Your task to perform on an android device: turn on javascript in the chrome app Image 0: 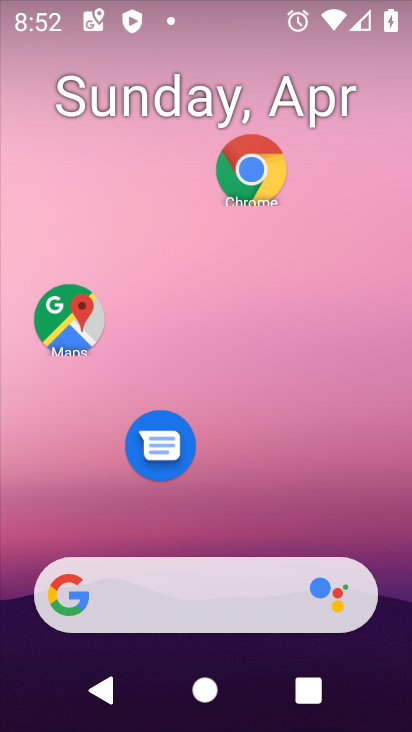
Step 0: click (255, 172)
Your task to perform on an android device: turn on javascript in the chrome app Image 1: 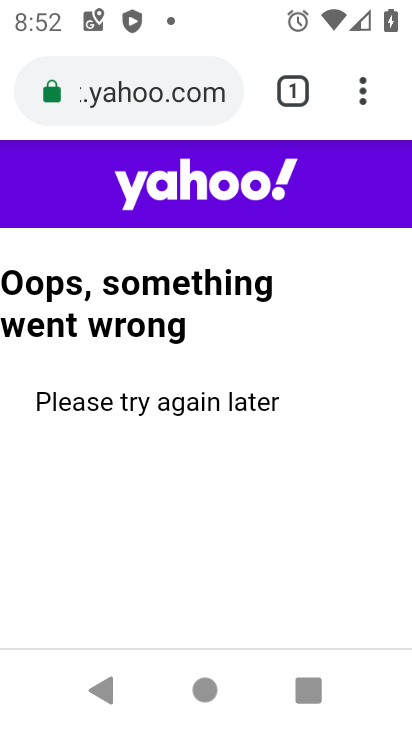
Step 1: click (359, 78)
Your task to perform on an android device: turn on javascript in the chrome app Image 2: 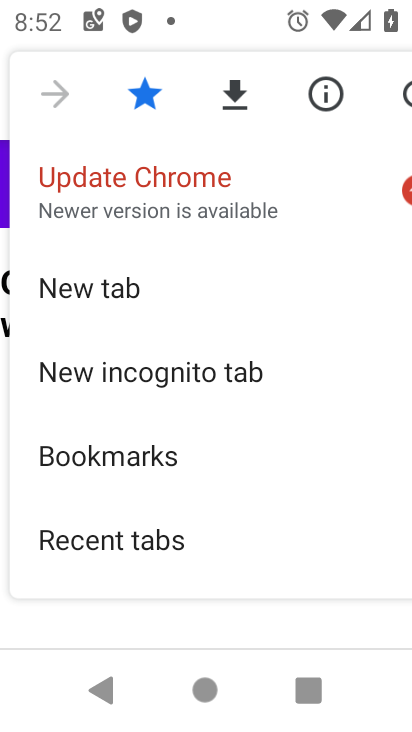
Step 2: drag from (285, 499) to (225, 133)
Your task to perform on an android device: turn on javascript in the chrome app Image 3: 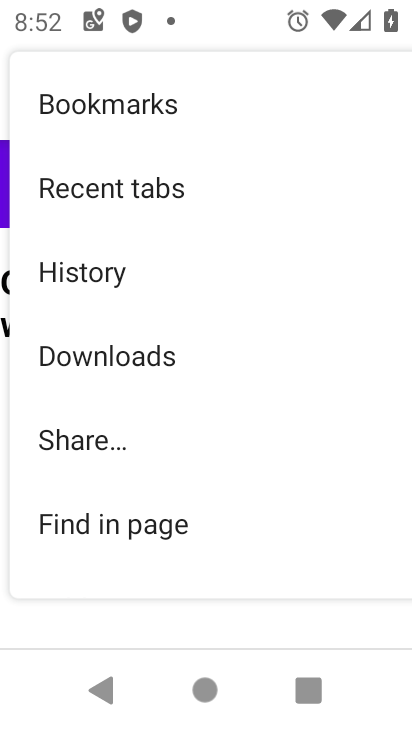
Step 3: drag from (304, 508) to (281, 223)
Your task to perform on an android device: turn on javascript in the chrome app Image 4: 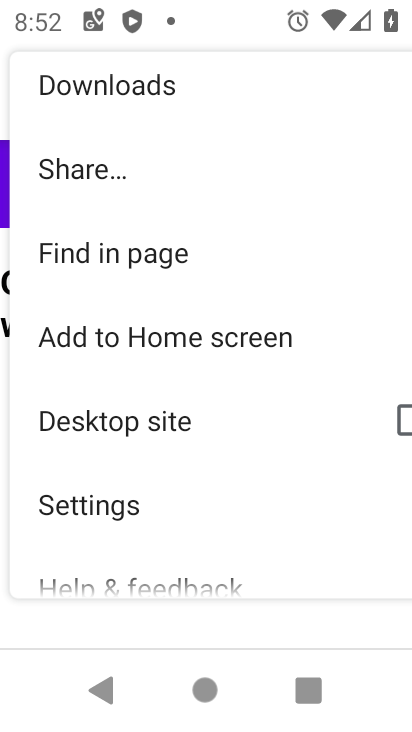
Step 4: click (134, 502)
Your task to perform on an android device: turn on javascript in the chrome app Image 5: 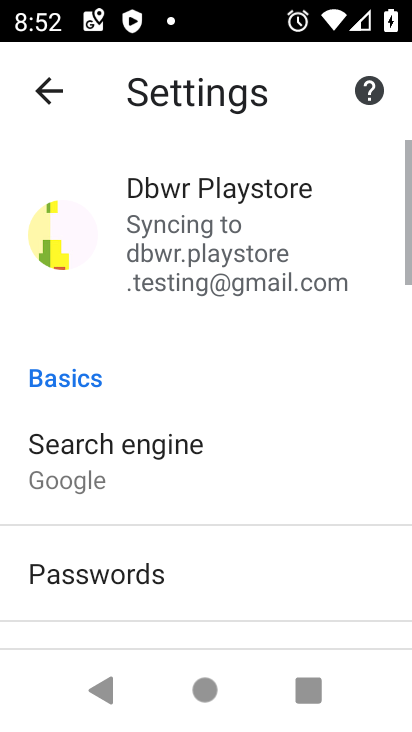
Step 5: drag from (214, 477) to (224, 164)
Your task to perform on an android device: turn on javascript in the chrome app Image 6: 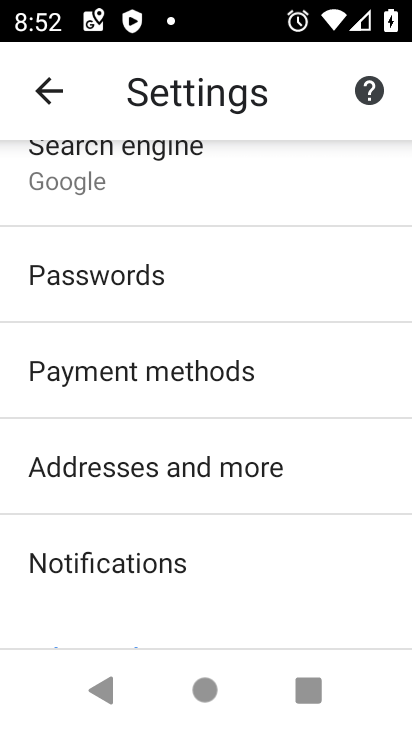
Step 6: drag from (261, 597) to (284, 233)
Your task to perform on an android device: turn on javascript in the chrome app Image 7: 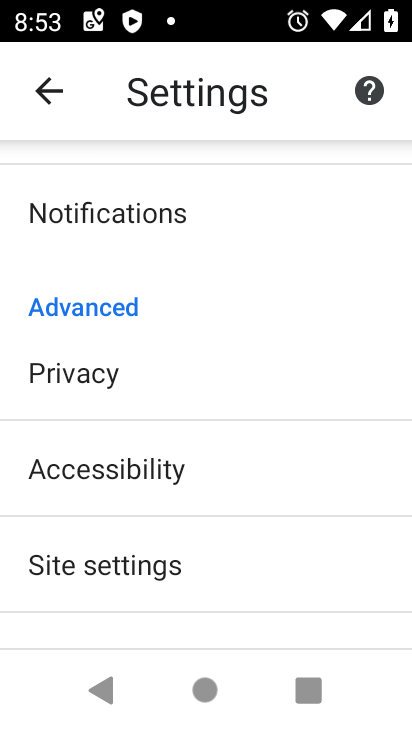
Step 7: click (136, 561)
Your task to perform on an android device: turn on javascript in the chrome app Image 8: 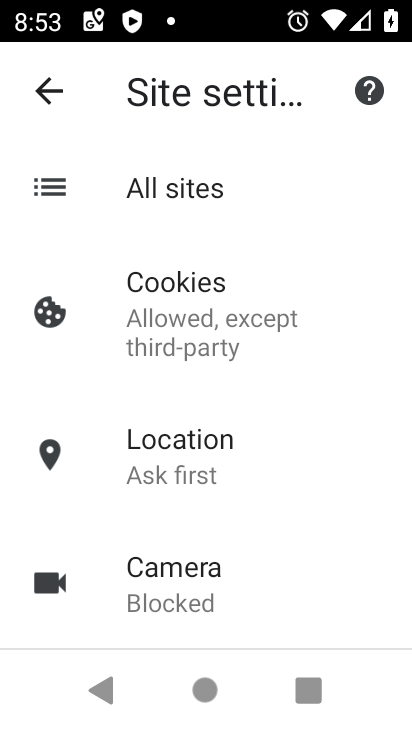
Step 8: drag from (296, 535) to (299, 166)
Your task to perform on an android device: turn on javascript in the chrome app Image 9: 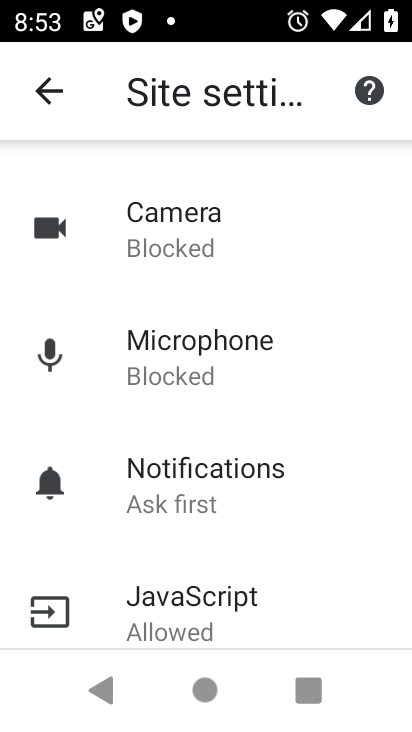
Step 9: drag from (263, 555) to (253, 361)
Your task to perform on an android device: turn on javascript in the chrome app Image 10: 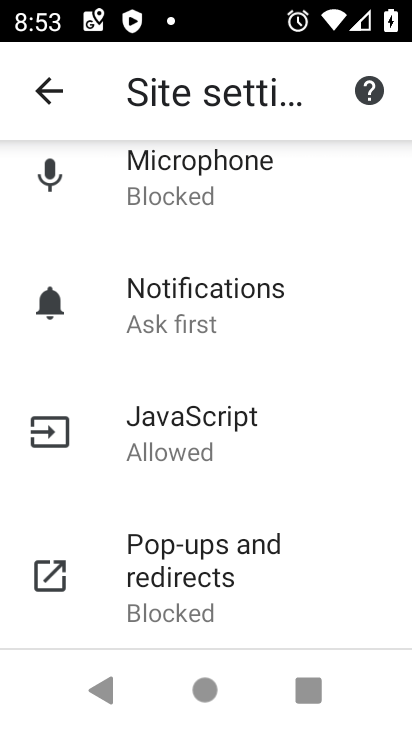
Step 10: click (220, 448)
Your task to perform on an android device: turn on javascript in the chrome app Image 11: 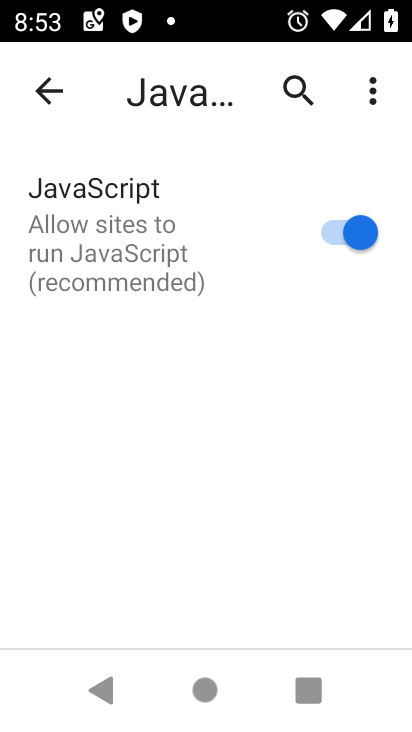
Step 11: task complete